Your task to perform on an android device: Search for sushi restaurants on Maps Image 0: 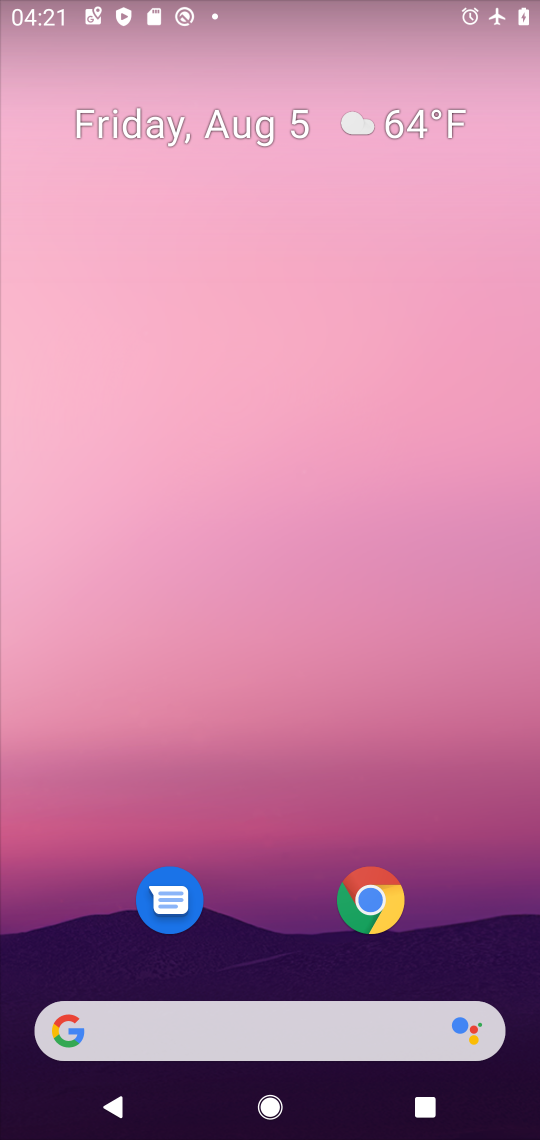
Step 0: drag from (259, 936) to (334, 98)
Your task to perform on an android device: Search for sushi restaurants on Maps Image 1: 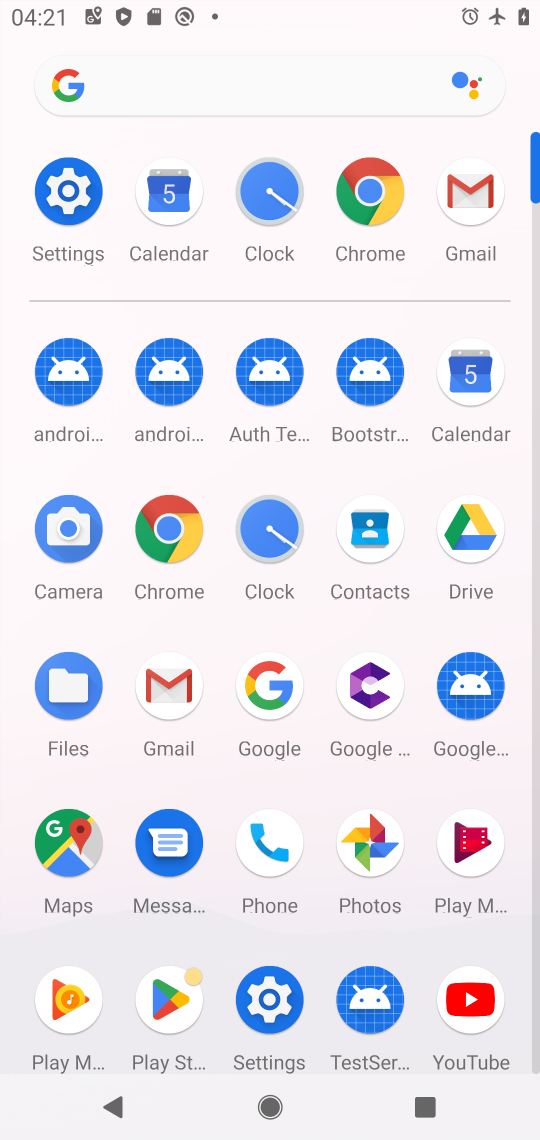
Step 1: click (72, 856)
Your task to perform on an android device: Search for sushi restaurants on Maps Image 2: 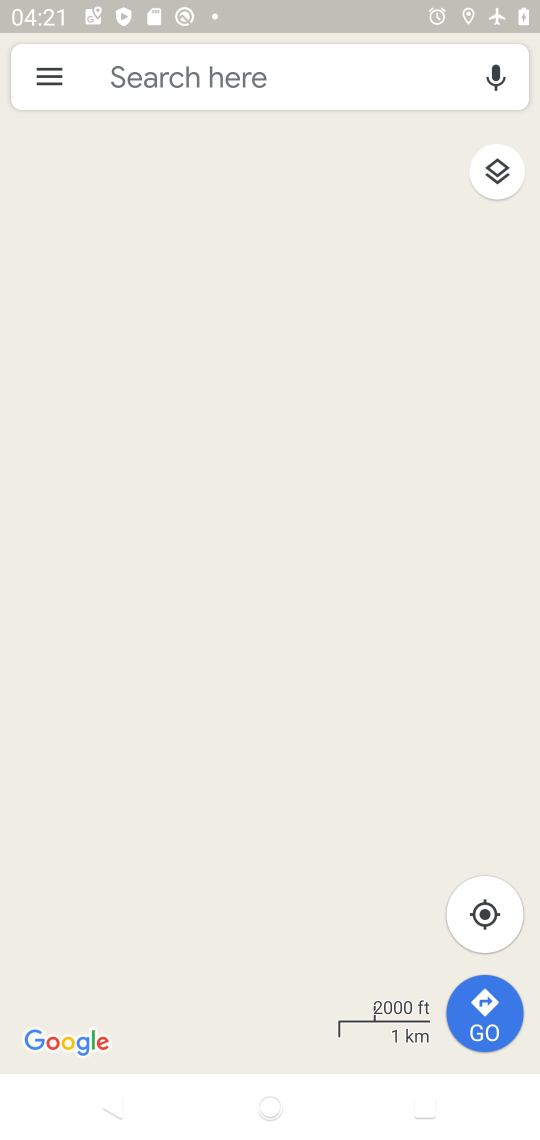
Step 2: click (280, 67)
Your task to perform on an android device: Search for sushi restaurants on Maps Image 3: 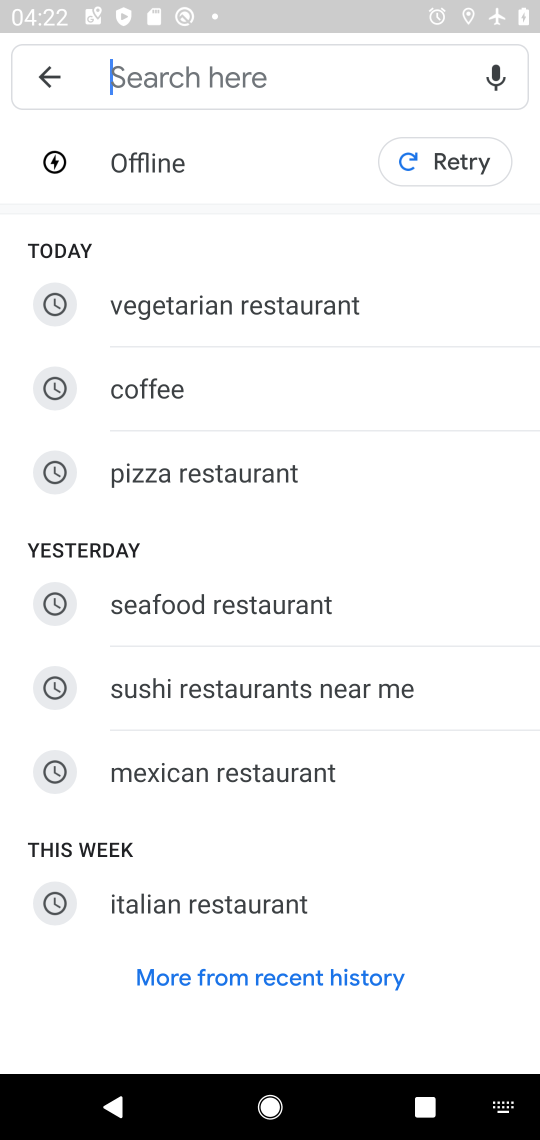
Step 3: click (178, 695)
Your task to perform on an android device: Search for sushi restaurants on Maps Image 4: 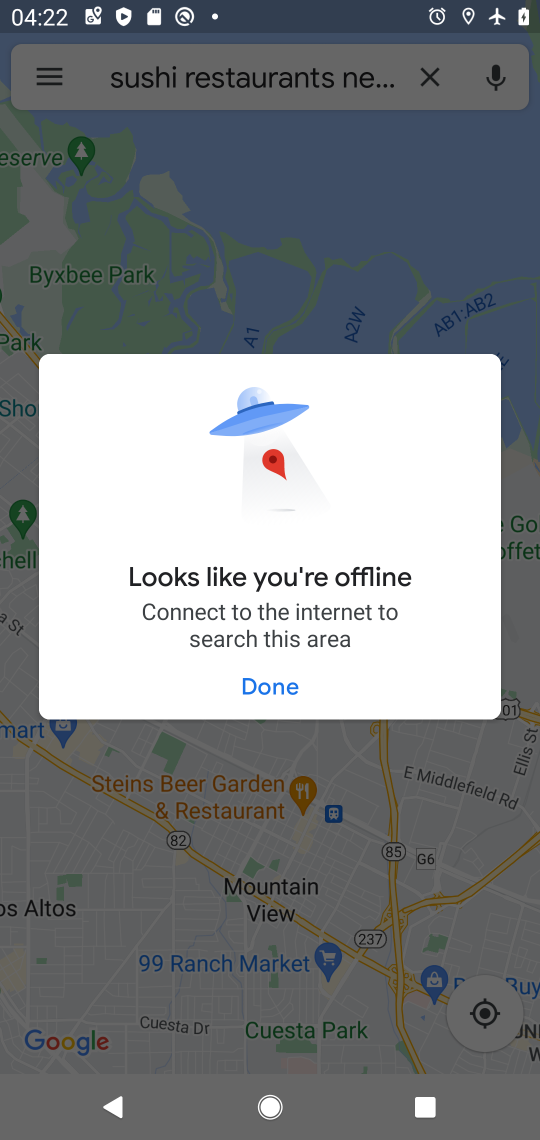
Step 4: click (260, 671)
Your task to perform on an android device: Search for sushi restaurants on Maps Image 5: 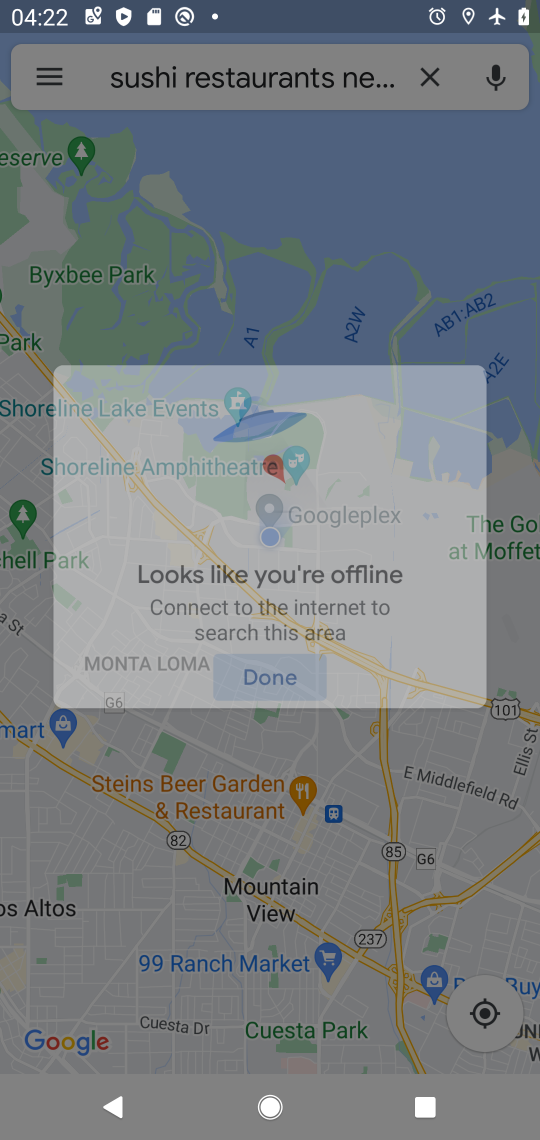
Step 5: drag from (507, 6) to (366, 821)
Your task to perform on an android device: Search for sushi restaurants on Maps Image 6: 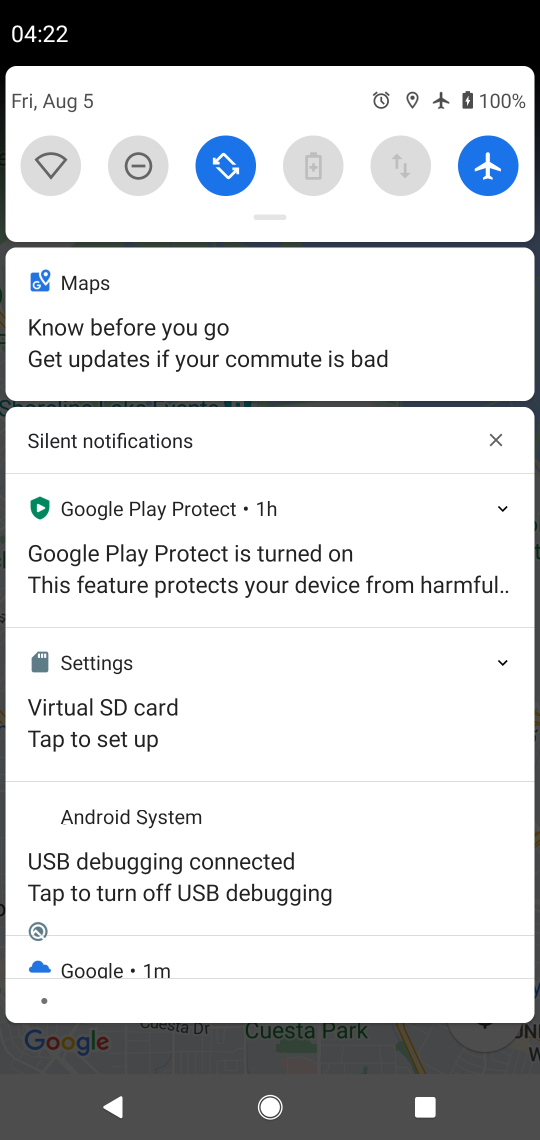
Step 6: click (486, 179)
Your task to perform on an android device: Search for sushi restaurants on Maps Image 7: 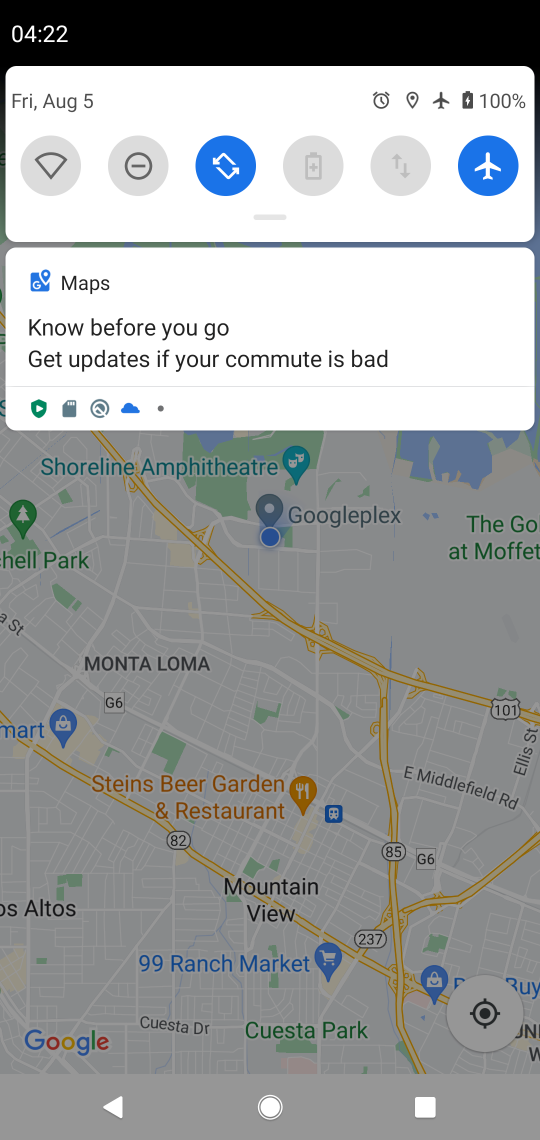
Step 7: click (243, 1048)
Your task to perform on an android device: Search for sushi restaurants on Maps Image 8: 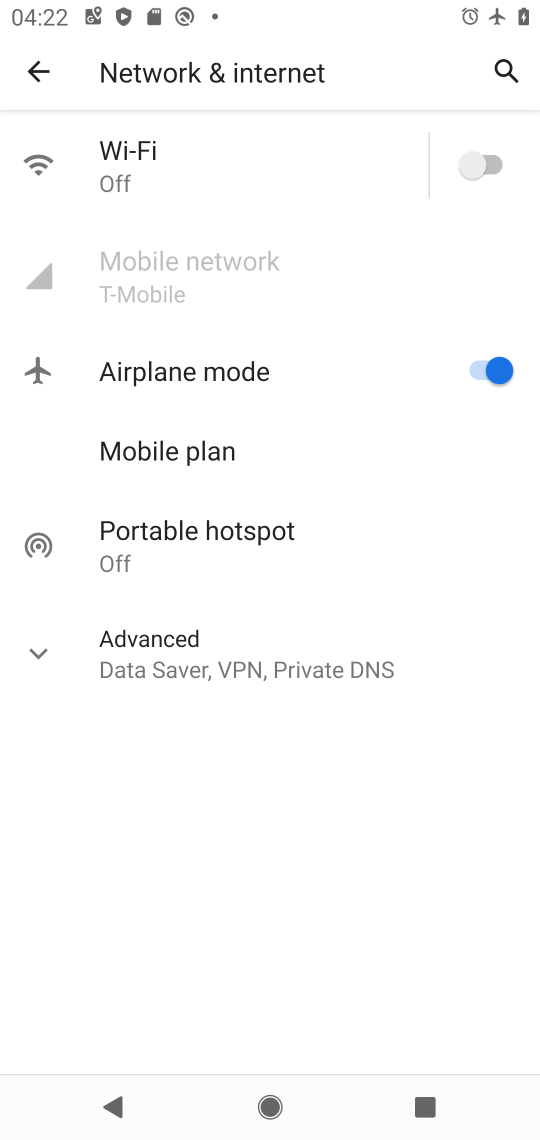
Step 8: click (19, 70)
Your task to perform on an android device: Search for sushi restaurants on Maps Image 9: 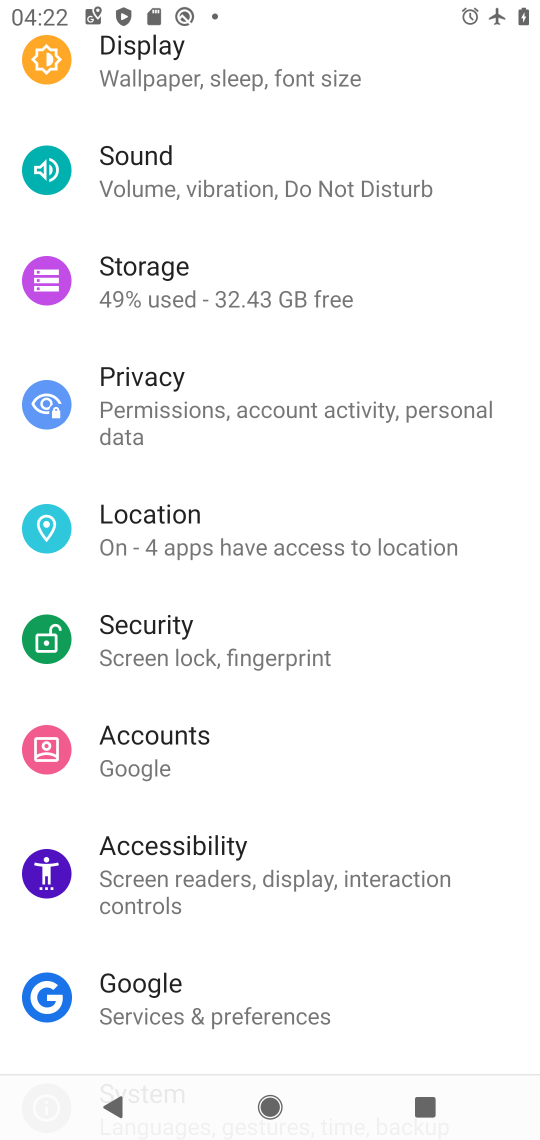
Step 9: drag from (498, 20) to (467, 693)
Your task to perform on an android device: Search for sushi restaurants on Maps Image 10: 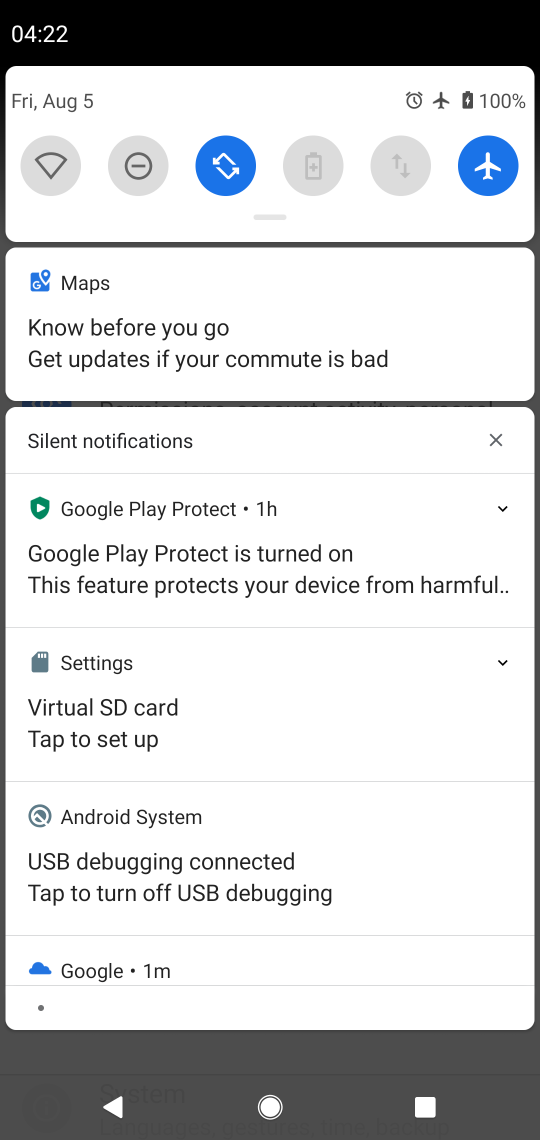
Step 10: click (483, 177)
Your task to perform on an android device: Search for sushi restaurants on Maps Image 11: 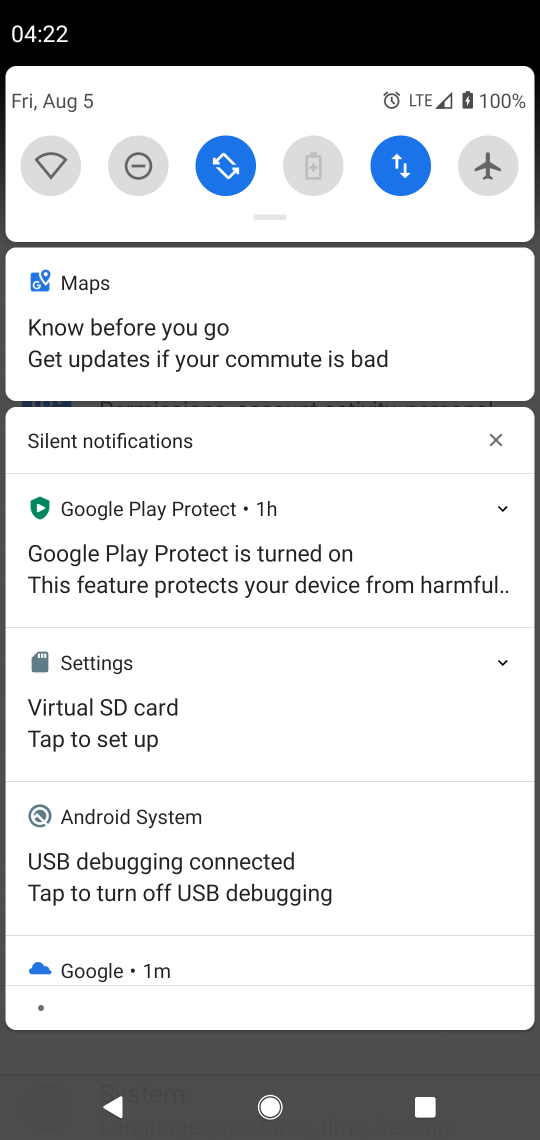
Step 11: click (329, 1068)
Your task to perform on an android device: Search for sushi restaurants on Maps Image 12: 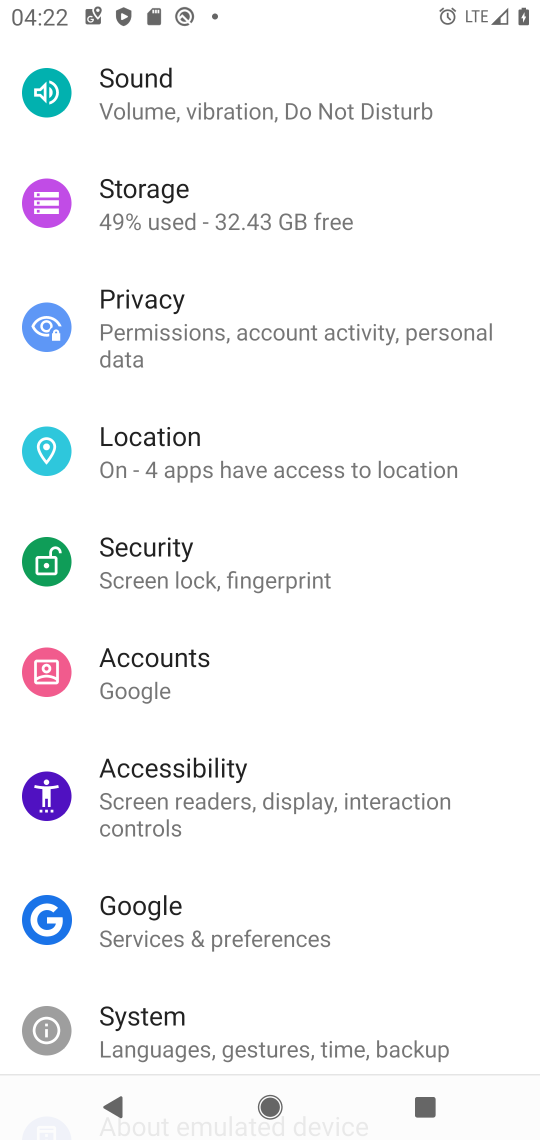
Step 12: press back button
Your task to perform on an android device: Search for sushi restaurants on Maps Image 13: 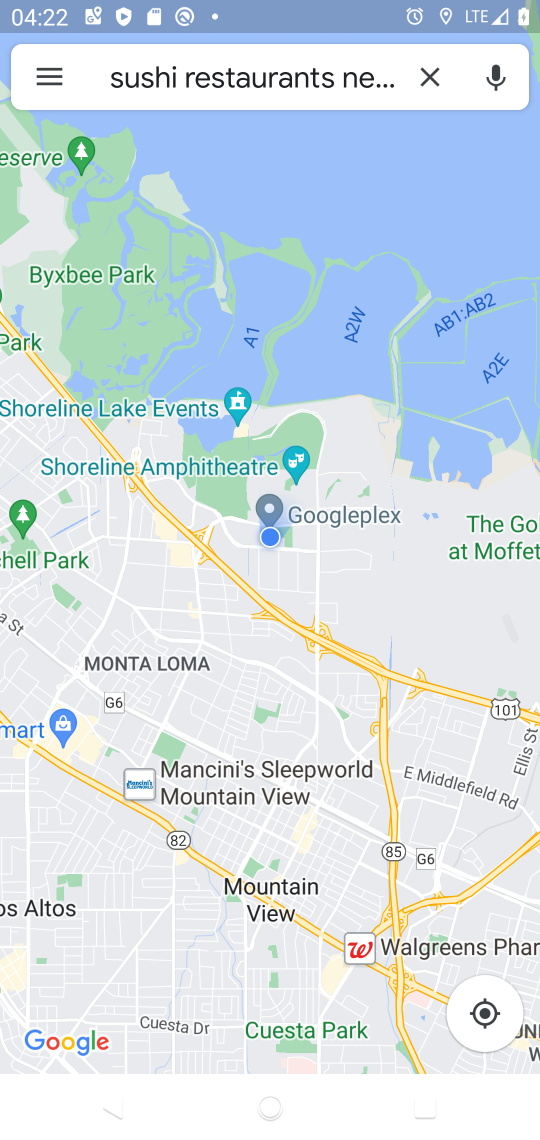
Step 13: click (412, 91)
Your task to perform on an android device: Search for sushi restaurants on Maps Image 14: 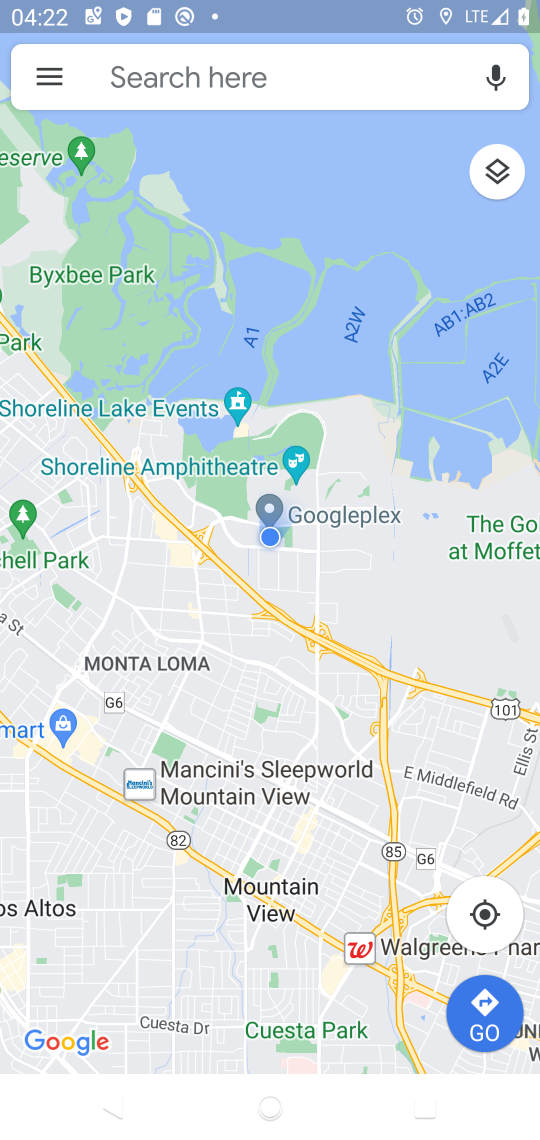
Step 14: click (272, 77)
Your task to perform on an android device: Search for sushi restaurants on Maps Image 15: 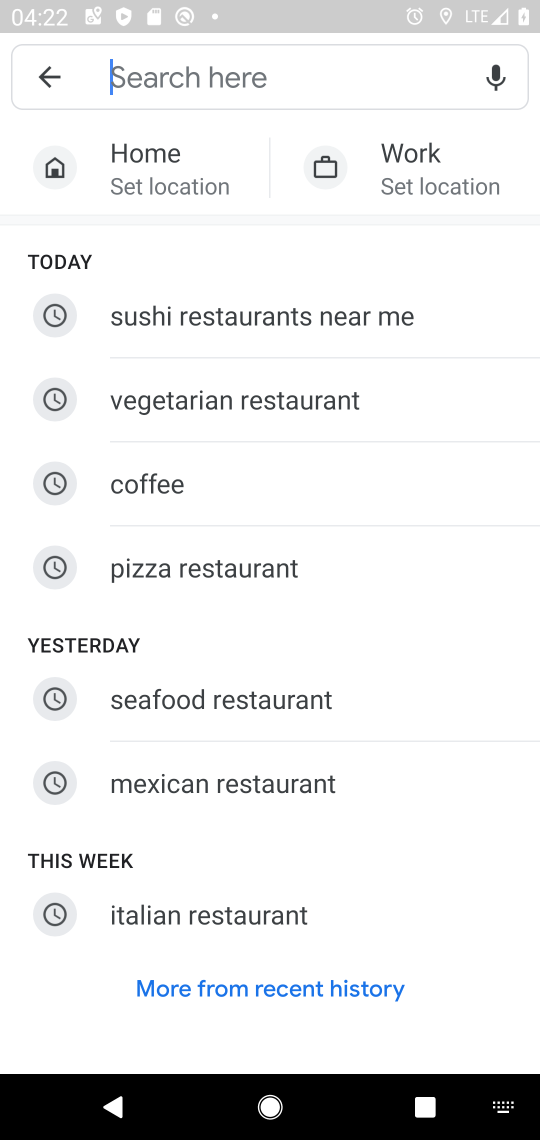
Step 15: type "sushi rest"
Your task to perform on an android device: Search for sushi restaurants on Maps Image 16: 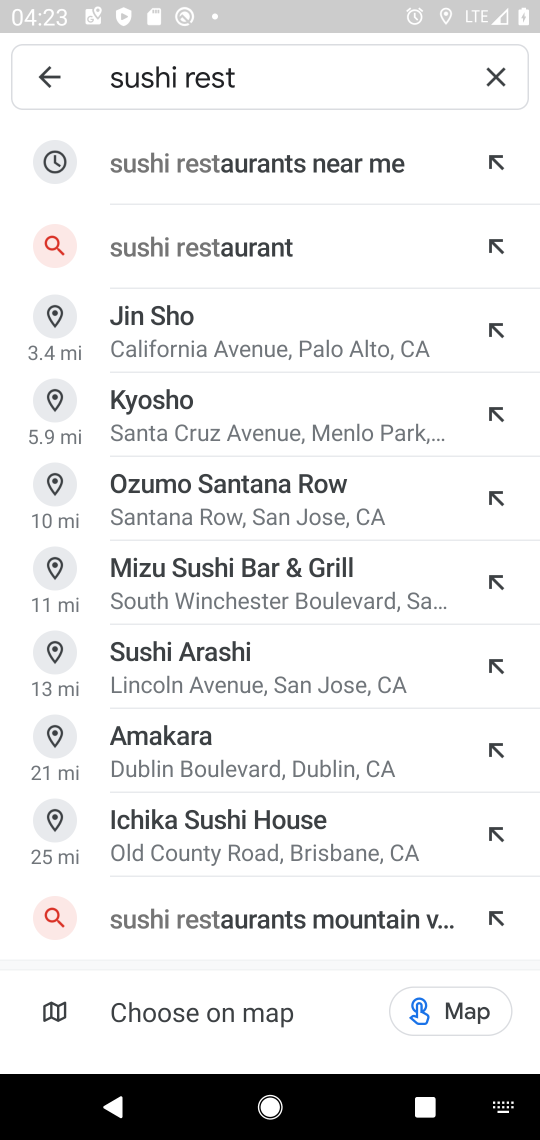
Step 16: click (274, 249)
Your task to perform on an android device: Search for sushi restaurants on Maps Image 17: 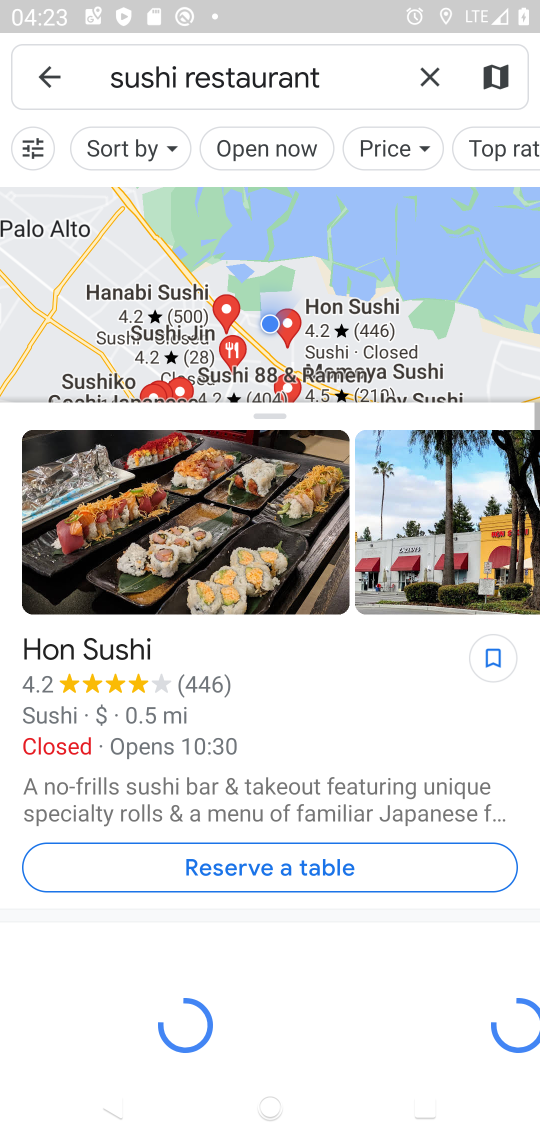
Step 17: task complete